Your task to perform on an android device: Show me popular games on the Play Store Image 0: 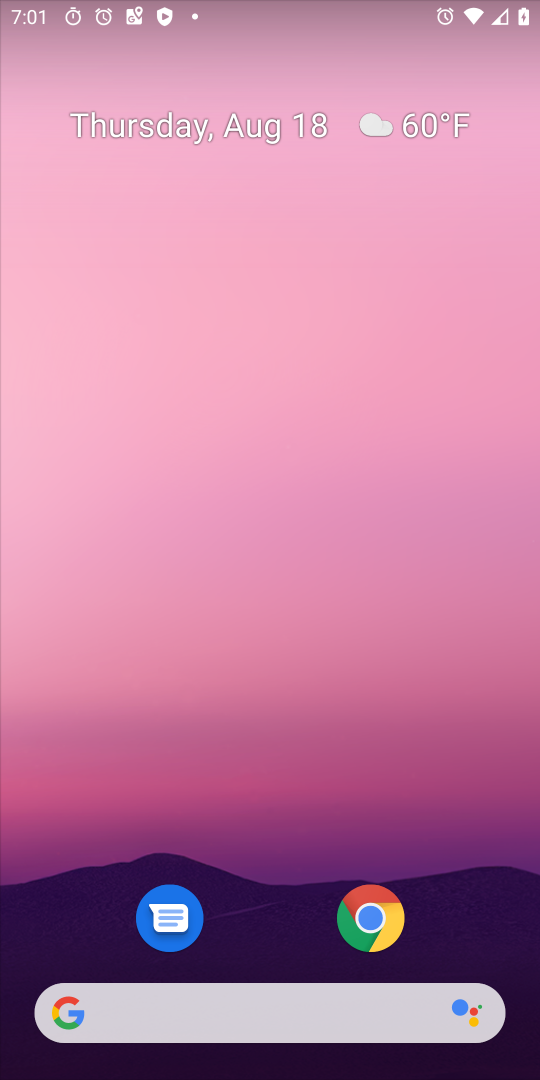
Step 0: press home button
Your task to perform on an android device: Show me popular games on the Play Store Image 1: 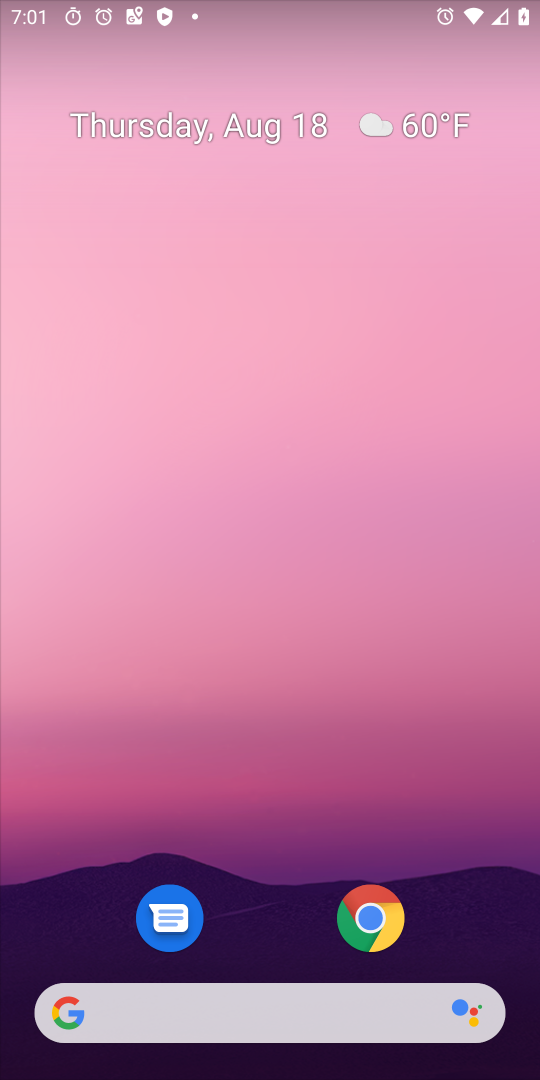
Step 1: drag from (255, 949) to (335, 78)
Your task to perform on an android device: Show me popular games on the Play Store Image 2: 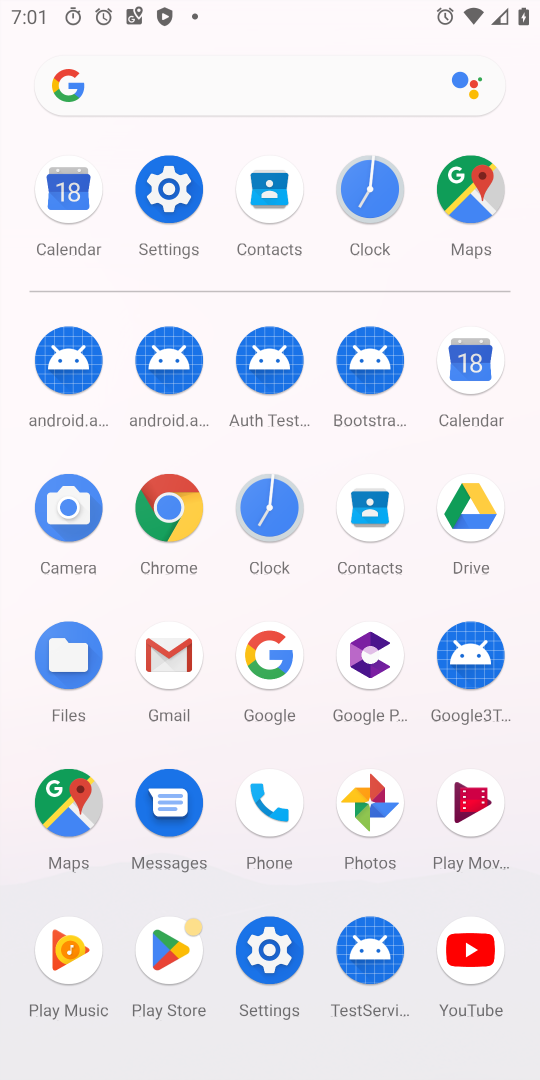
Step 2: click (171, 979)
Your task to perform on an android device: Show me popular games on the Play Store Image 3: 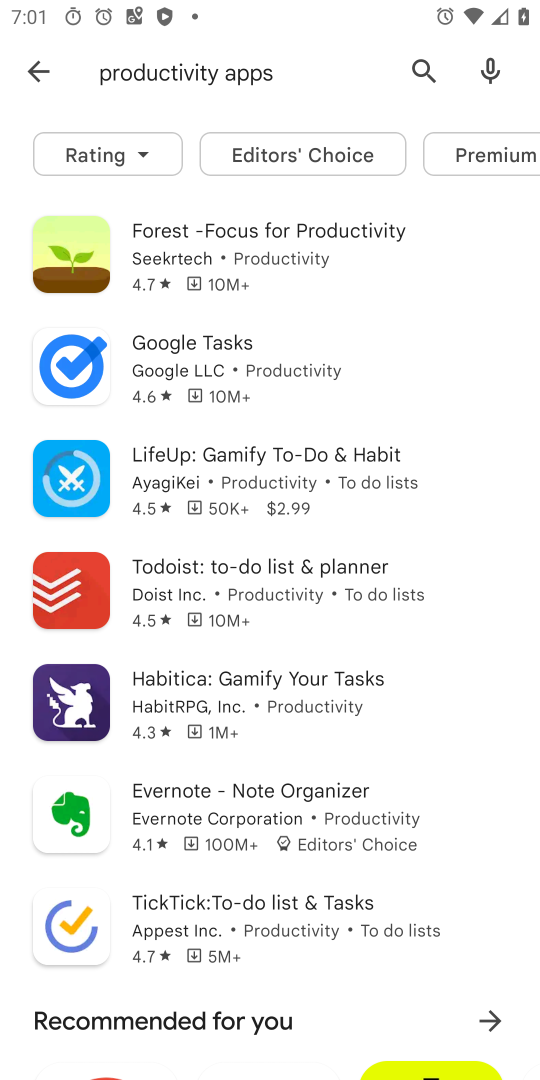
Step 3: press back button
Your task to perform on an android device: Show me popular games on the Play Store Image 4: 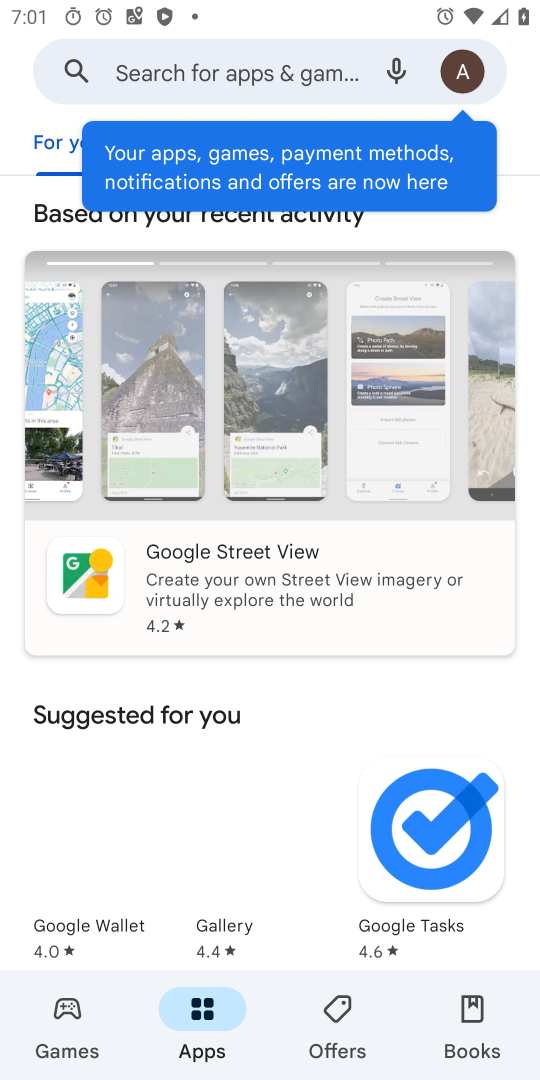
Step 4: click (58, 1018)
Your task to perform on an android device: Show me popular games on the Play Store Image 5: 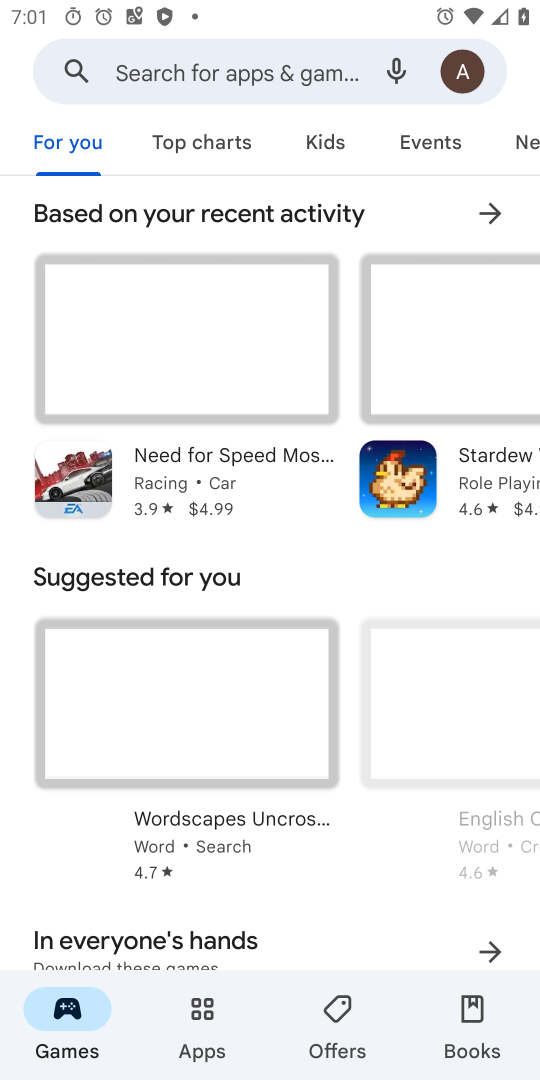
Step 5: drag from (522, 144) to (211, 145)
Your task to perform on an android device: Show me popular games on the Play Store Image 6: 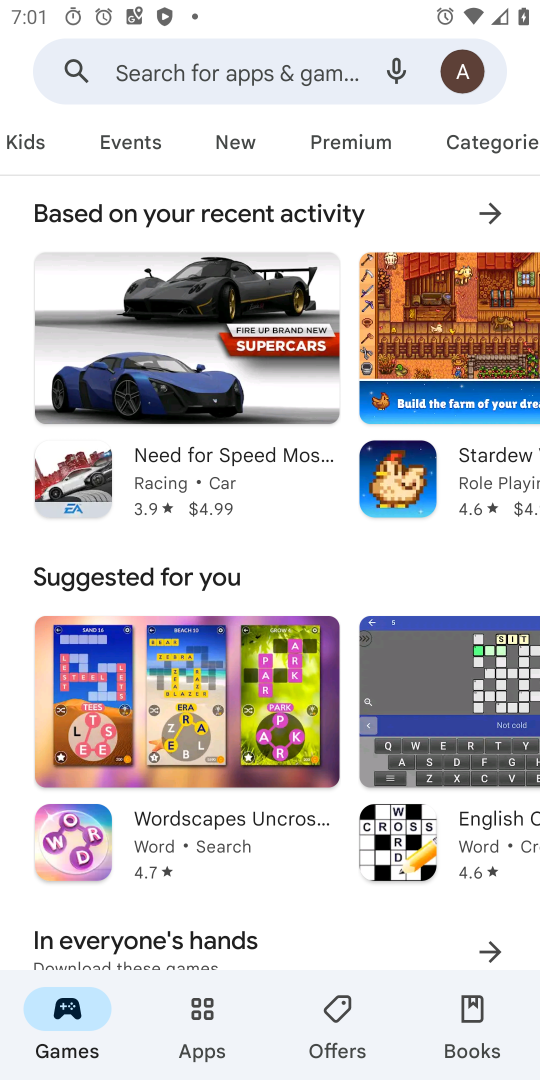
Step 6: click (505, 150)
Your task to perform on an android device: Show me popular games on the Play Store Image 7: 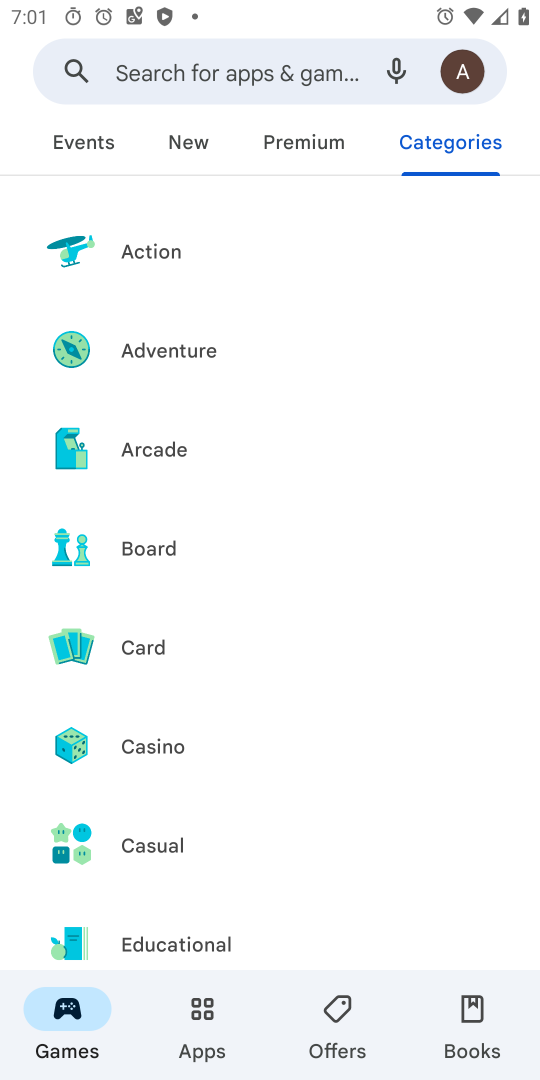
Step 7: task complete